Your task to perform on an android device: set the stopwatch Image 0: 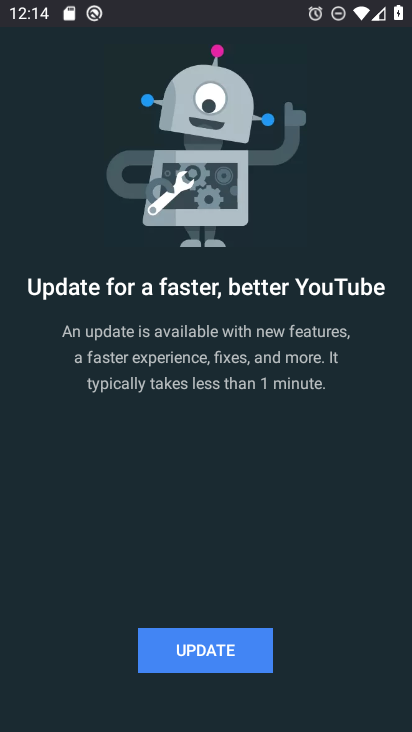
Step 0: press home button
Your task to perform on an android device: set the stopwatch Image 1: 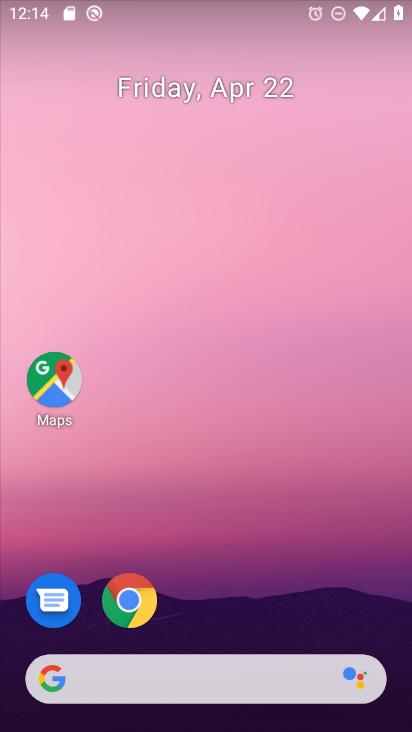
Step 1: drag from (256, 492) to (236, 2)
Your task to perform on an android device: set the stopwatch Image 2: 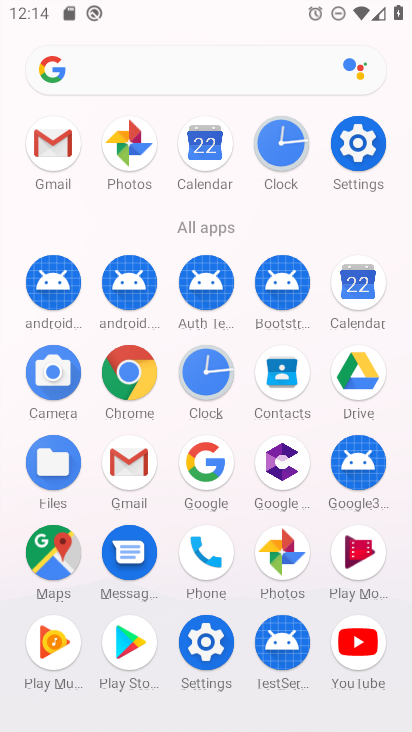
Step 2: click (280, 139)
Your task to perform on an android device: set the stopwatch Image 3: 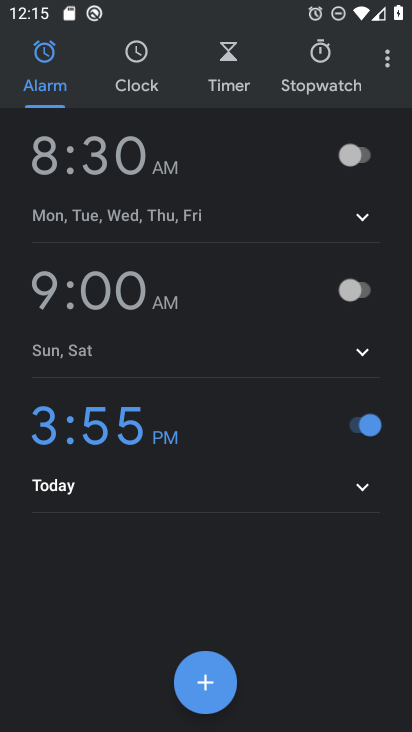
Step 3: click (322, 58)
Your task to perform on an android device: set the stopwatch Image 4: 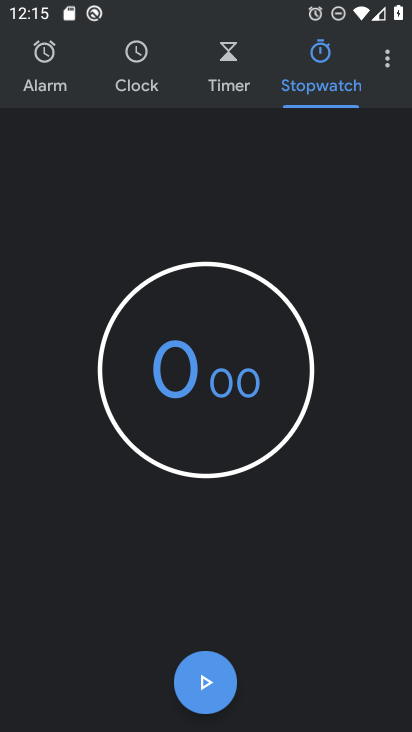
Step 4: click (213, 679)
Your task to perform on an android device: set the stopwatch Image 5: 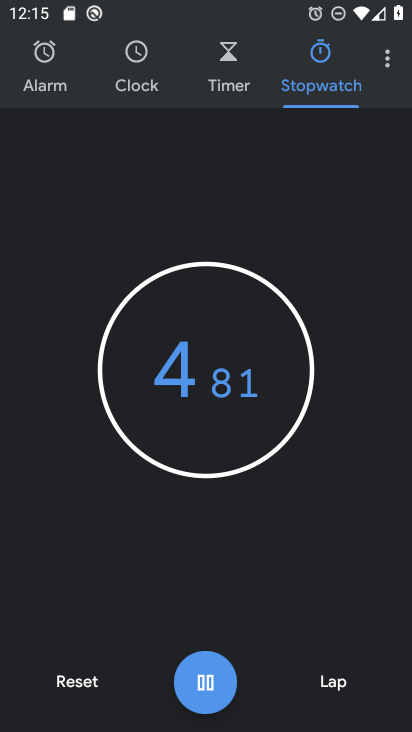
Step 5: click (213, 679)
Your task to perform on an android device: set the stopwatch Image 6: 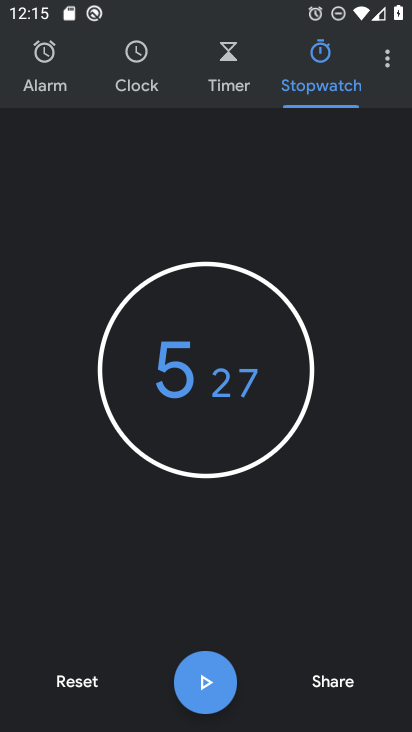
Step 6: task complete